Your task to perform on an android device: Show the shopping cart on bestbuy.com. Add "rayovac triple a" to the cart on bestbuy.com, then select checkout. Image 0: 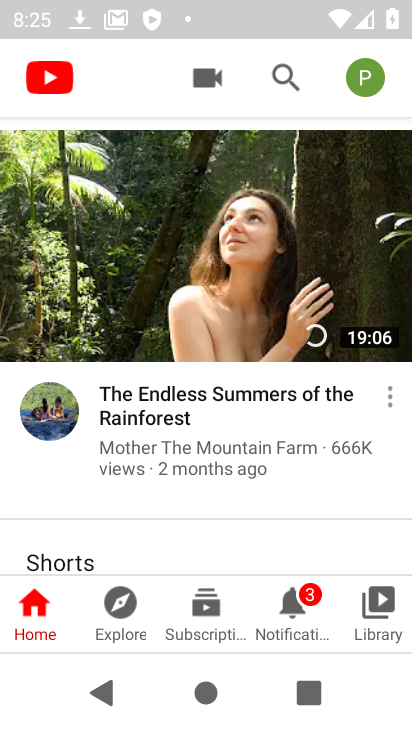
Step 0: press home button
Your task to perform on an android device: Show the shopping cart on bestbuy.com. Add "rayovac triple a" to the cart on bestbuy.com, then select checkout. Image 1: 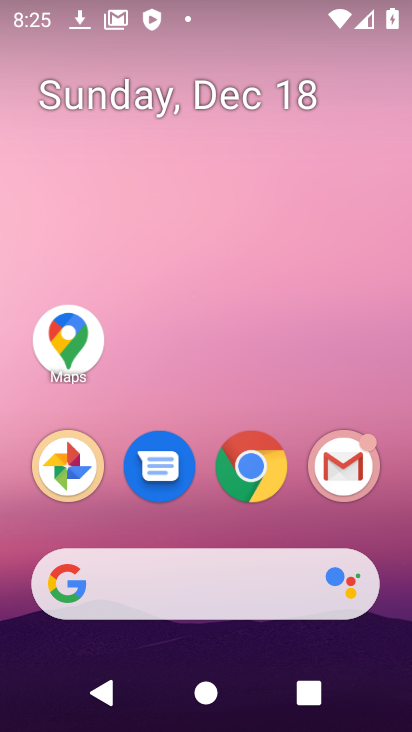
Step 1: click (244, 454)
Your task to perform on an android device: Show the shopping cart on bestbuy.com. Add "rayovac triple a" to the cart on bestbuy.com, then select checkout. Image 2: 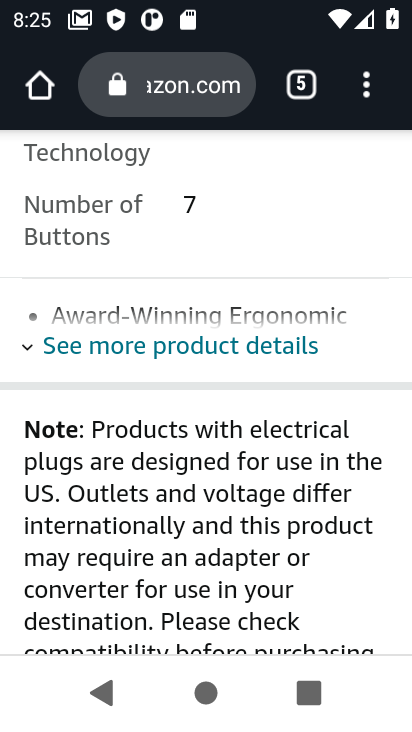
Step 2: click (186, 85)
Your task to perform on an android device: Show the shopping cart on bestbuy.com. Add "rayovac triple a" to the cart on bestbuy.com, then select checkout. Image 3: 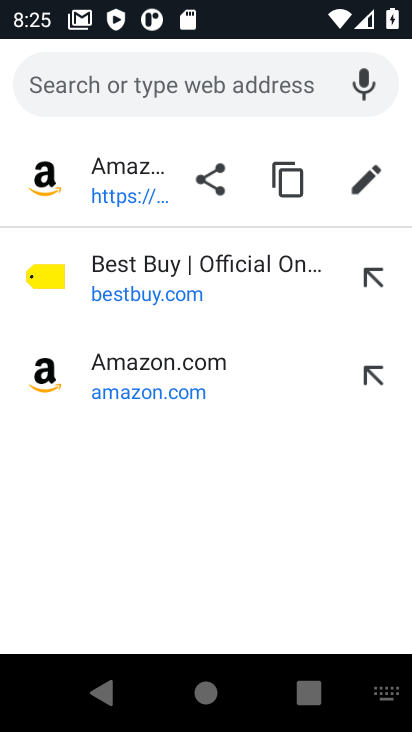
Step 3: click (219, 276)
Your task to perform on an android device: Show the shopping cart on bestbuy.com. Add "rayovac triple a" to the cart on bestbuy.com, then select checkout. Image 4: 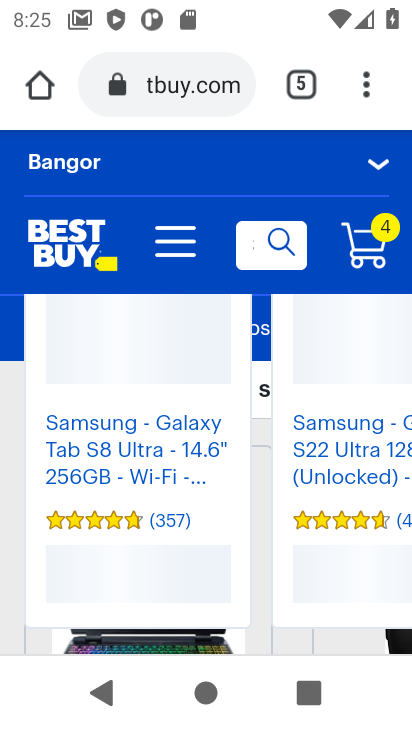
Step 4: click (276, 241)
Your task to perform on an android device: Show the shopping cart on bestbuy.com. Add "rayovac triple a" to the cart on bestbuy.com, then select checkout. Image 5: 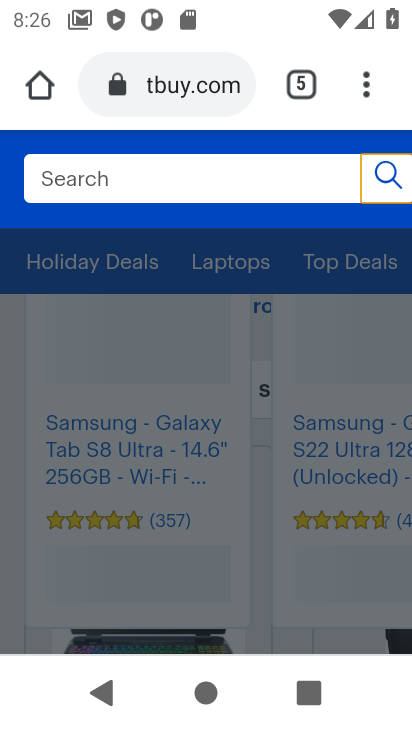
Step 5: click (264, 169)
Your task to perform on an android device: Show the shopping cart on bestbuy.com. Add "rayovac triple a" to the cart on bestbuy.com, then select checkout. Image 6: 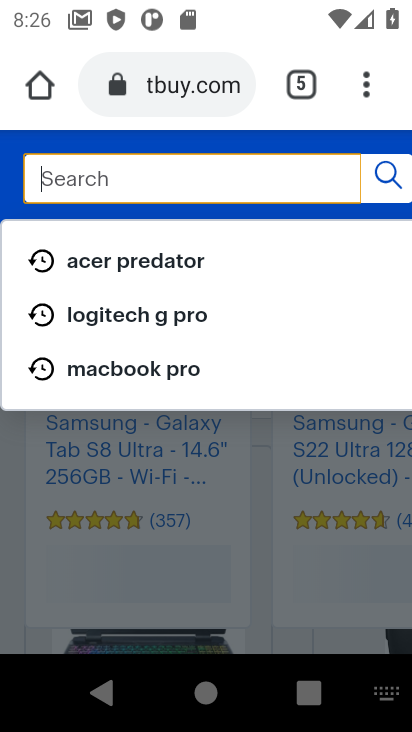
Step 6: type "RAYOVAC TRIPLE A"
Your task to perform on an android device: Show the shopping cart on bestbuy.com. Add "rayovac triple a" to the cart on bestbuy.com, then select checkout. Image 7: 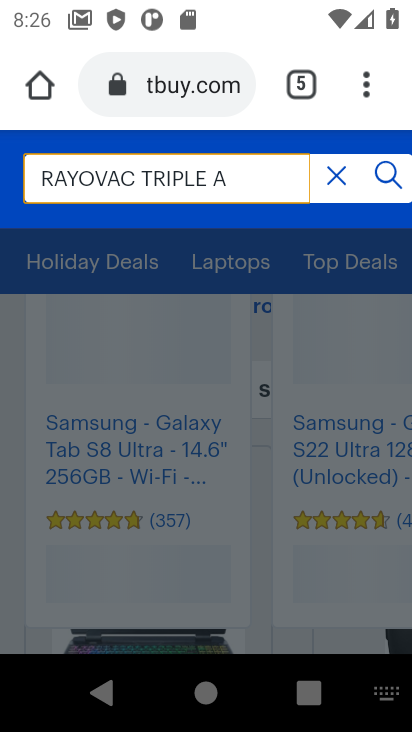
Step 7: click (389, 175)
Your task to perform on an android device: Show the shopping cart on bestbuy.com. Add "rayovac triple a" to the cart on bestbuy.com, then select checkout. Image 8: 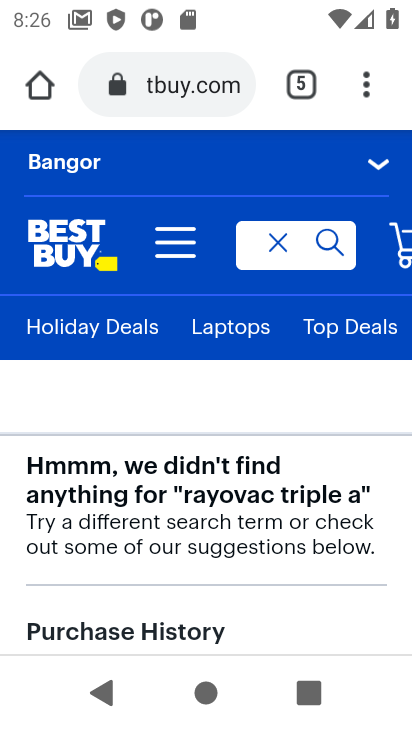
Step 8: drag from (243, 611) to (222, 210)
Your task to perform on an android device: Show the shopping cart on bestbuy.com. Add "rayovac triple a" to the cart on bestbuy.com, then select checkout. Image 9: 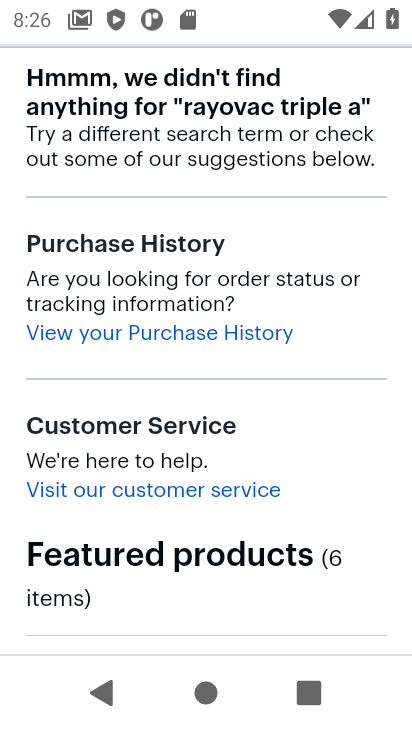
Step 9: drag from (237, 597) to (230, 156)
Your task to perform on an android device: Show the shopping cart on bestbuy.com. Add "rayovac triple a" to the cart on bestbuy.com, then select checkout. Image 10: 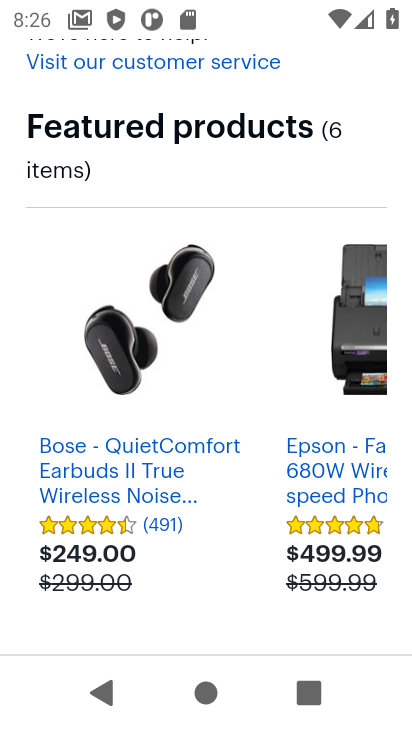
Step 10: drag from (203, 553) to (197, 339)
Your task to perform on an android device: Show the shopping cart on bestbuy.com. Add "rayovac triple a" to the cart on bestbuy.com, then select checkout. Image 11: 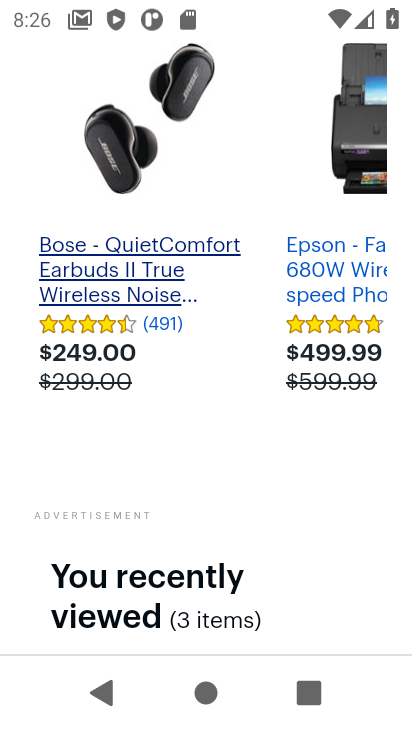
Step 11: drag from (232, 624) to (242, 424)
Your task to perform on an android device: Show the shopping cart on bestbuy.com. Add "rayovac triple a" to the cart on bestbuy.com, then select checkout. Image 12: 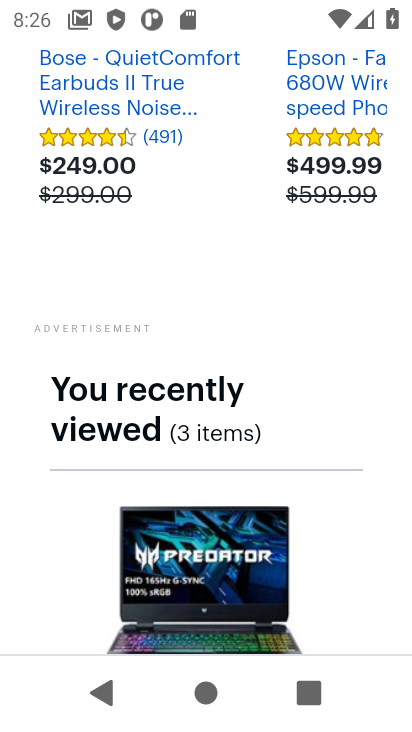
Step 12: drag from (294, 547) to (260, 278)
Your task to perform on an android device: Show the shopping cart on bestbuy.com. Add "rayovac triple a" to the cart on bestbuy.com, then select checkout. Image 13: 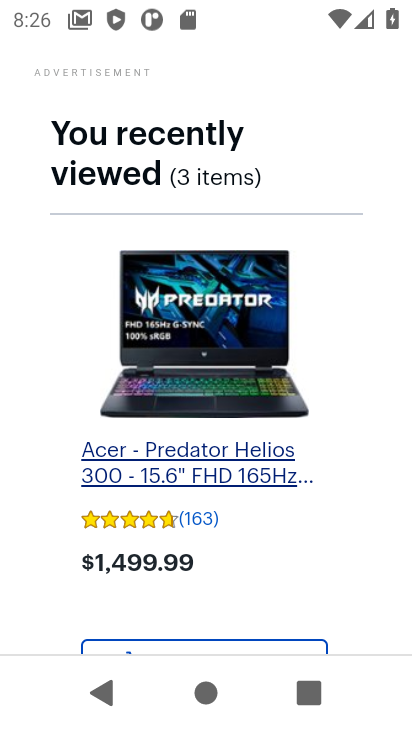
Step 13: drag from (290, 463) to (266, 297)
Your task to perform on an android device: Show the shopping cart on bestbuy.com. Add "rayovac triple a" to the cart on bestbuy.com, then select checkout. Image 14: 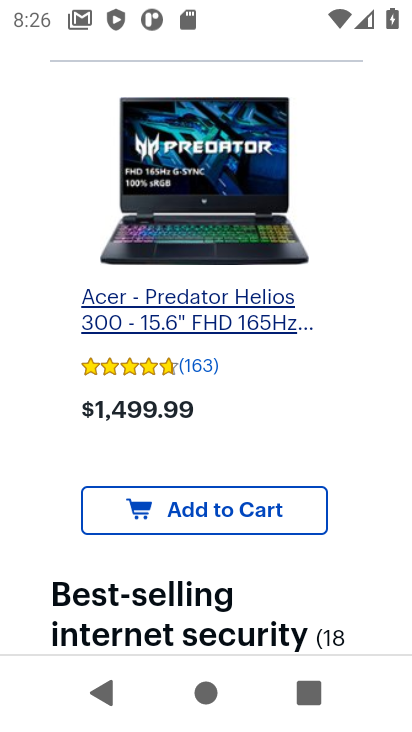
Step 14: click (237, 511)
Your task to perform on an android device: Show the shopping cart on bestbuy.com. Add "rayovac triple a" to the cart on bestbuy.com, then select checkout. Image 15: 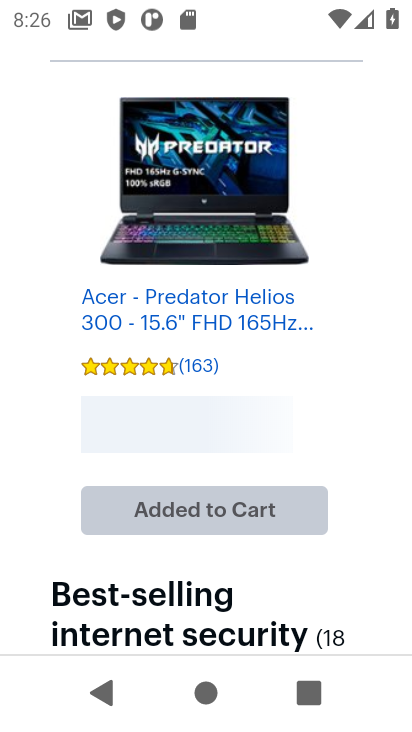
Step 15: task complete